Your task to perform on an android device: Open calendar and show me the third week of next month Image 0: 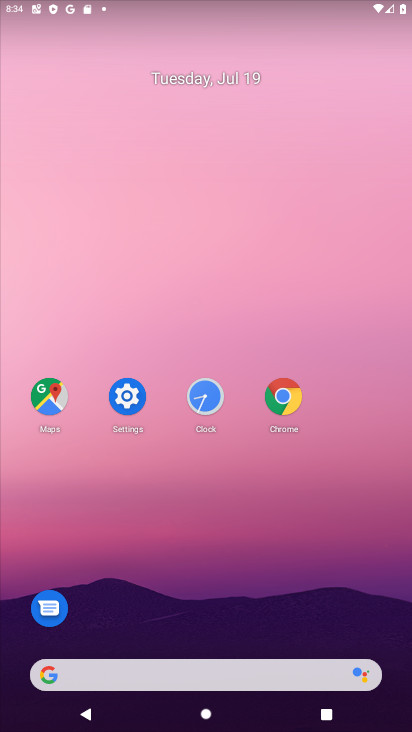
Step 0: drag from (399, 697) to (341, 94)
Your task to perform on an android device: Open calendar and show me the third week of next month Image 1: 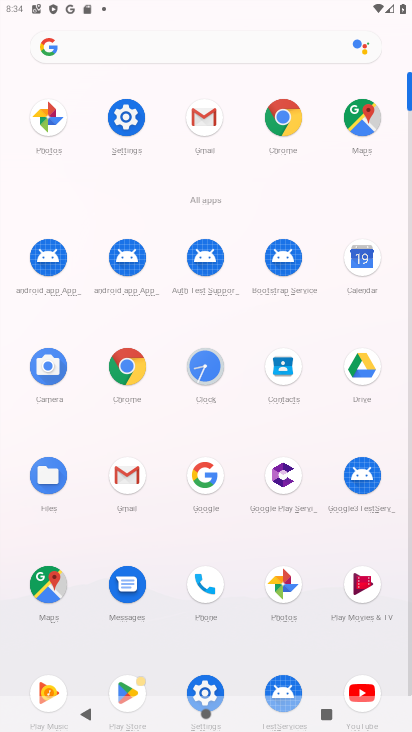
Step 1: drag from (362, 257) to (157, 488)
Your task to perform on an android device: Open calendar and show me the third week of next month Image 2: 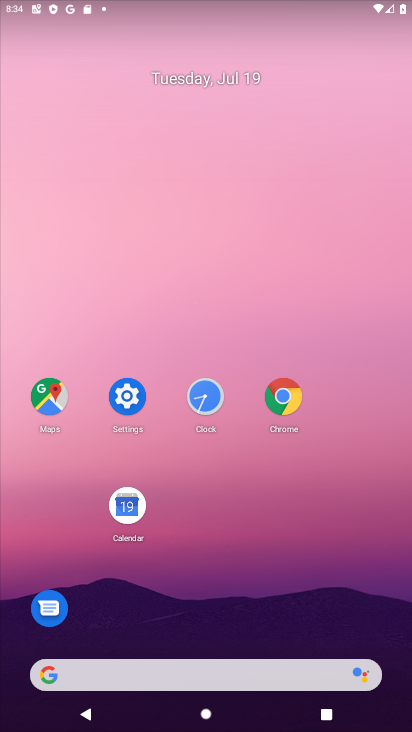
Step 2: click (135, 505)
Your task to perform on an android device: Open calendar and show me the third week of next month Image 3: 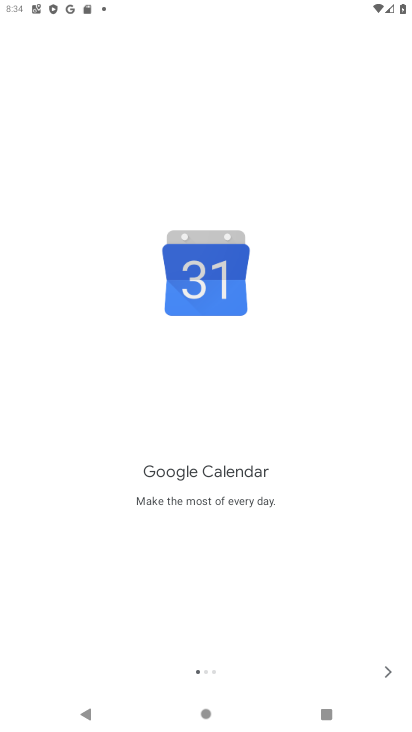
Step 3: click (389, 669)
Your task to perform on an android device: Open calendar and show me the third week of next month Image 4: 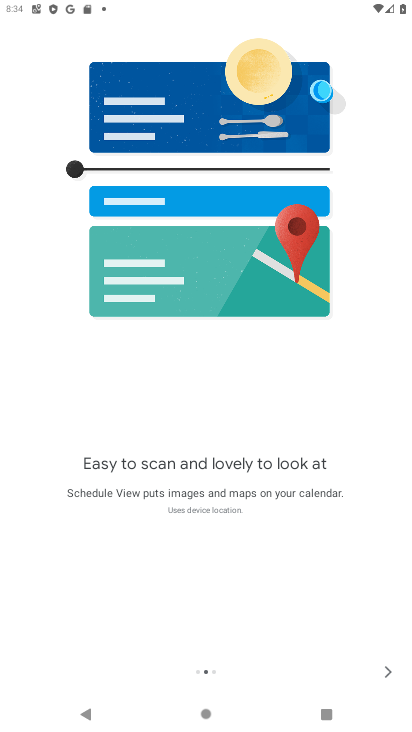
Step 4: click (389, 669)
Your task to perform on an android device: Open calendar and show me the third week of next month Image 5: 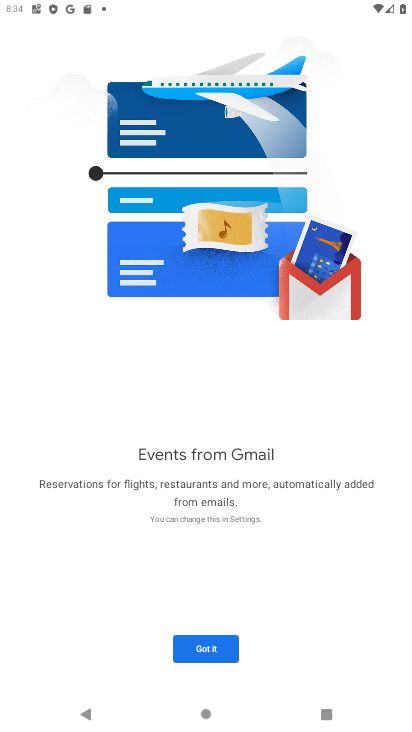
Step 5: click (181, 647)
Your task to perform on an android device: Open calendar and show me the third week of next month Image 6: 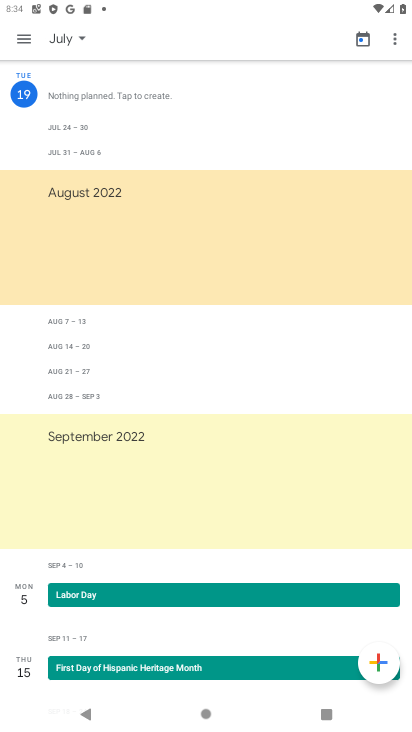
Step 6: click (78, 37)
Your task to perform on an android device: Open calendar and show me the third week of next month Image 7: 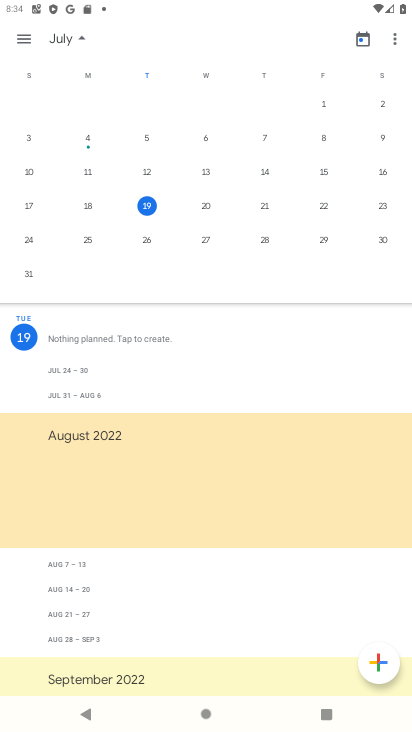
Step 7: drag from (379, 218) to (126, 179)
Your task to perform on an android device: Open calendar and show me the third week of next month Image 8: 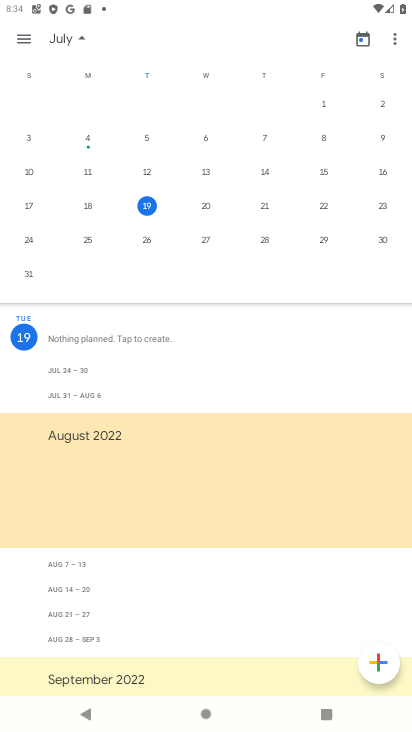
Step 8: drag from (396, 198) to (108, 192)
Your task to perform on an android device: Open calendar and show me the third week of next month Image 9: 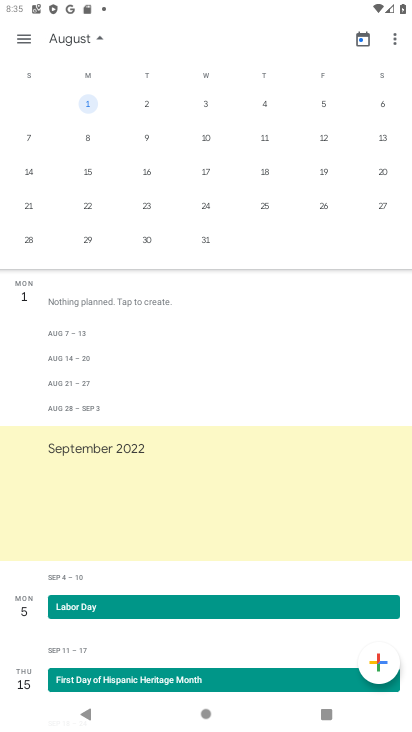
Step 9: click (266, 169)
Your task to perform on an android device: Open calendar and show me the third week of next month Image 10: 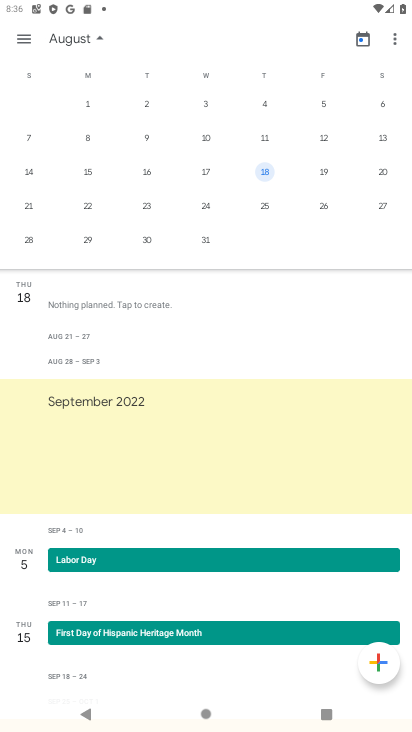
Step 10: task complete